Your task to perform on an android device: Open wifi settings Image 0: 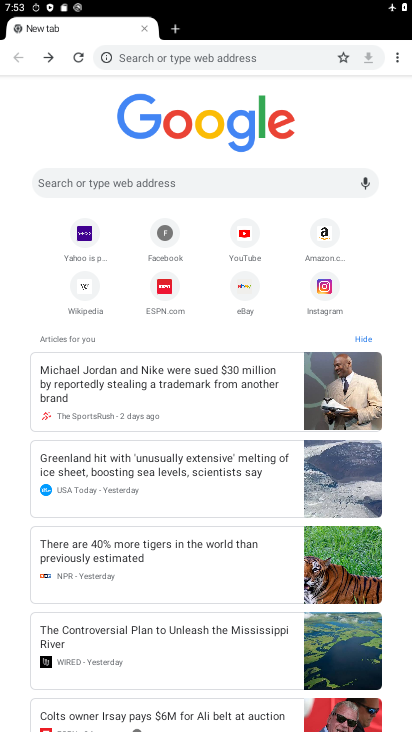
Step 0: press back button
Your task to perform on an android device: Open wifi settings Image 1: 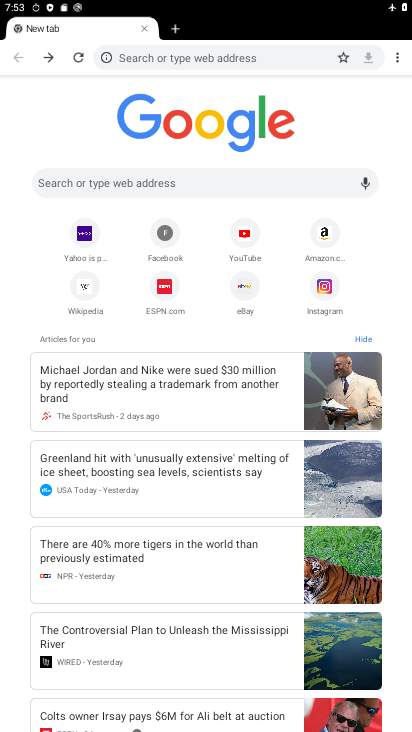
Step 1: press back button
Your task to perform on an android device: Open wifi settings Image 2: 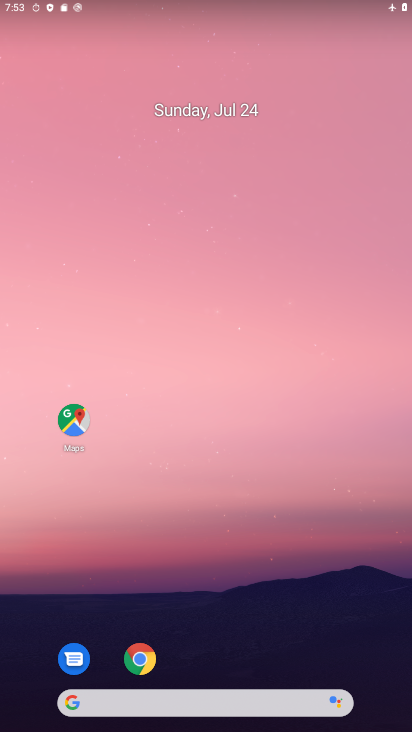
Step 2: drag from (198, 437) to (201, 167)
Your task to perform on an android device: Open wifi settings Image 3: 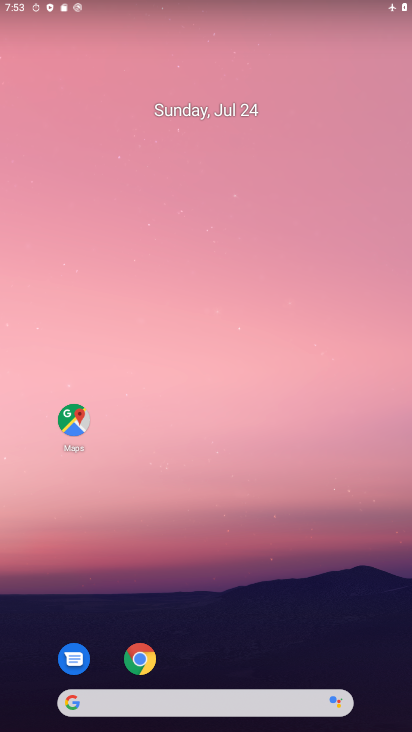
Step 3: drag from (288, 596) to (275, 24)
Your task to perform on an android device: Open wifi settings Image 4: 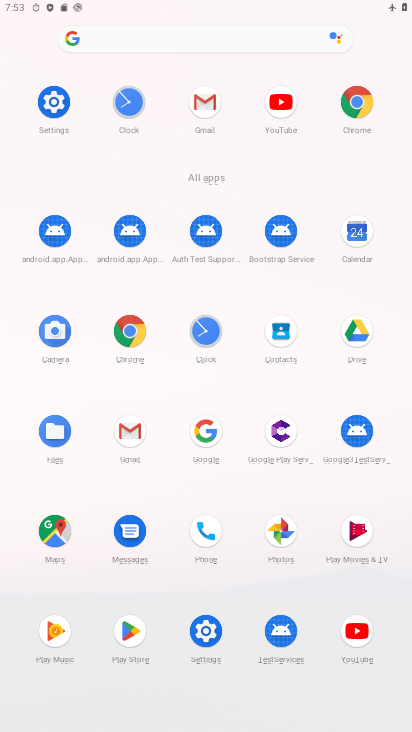
Step 4: click (43, 99)
Your task to perform on an android device: Open wifi settings Image 5: 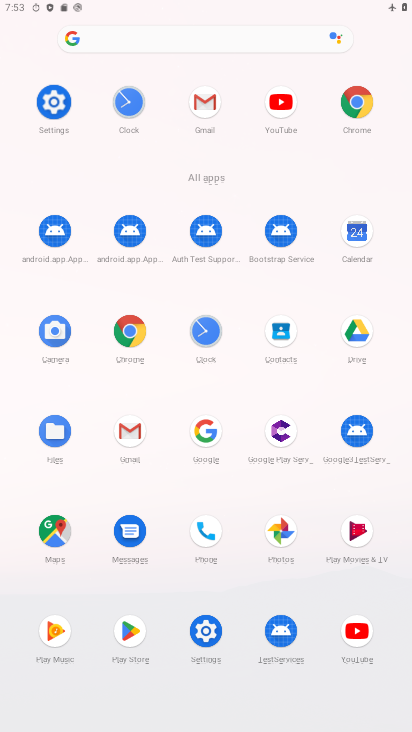
Step 5: click (40, 97)
Your task to perform on an android device: Open wifi settings Image 6: 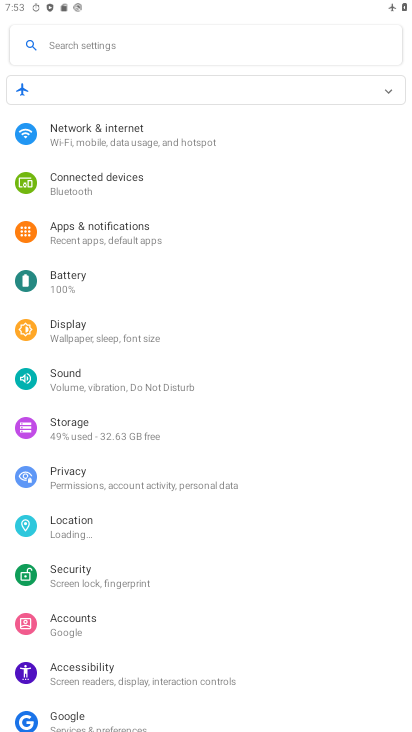
Step 6: click (115, 138)
Your task to perform on an android device: Open wifi settings Image 7: 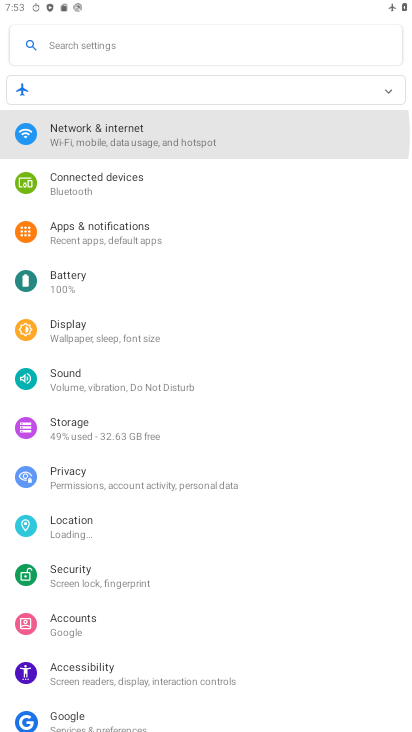
Step 7: click (115, 139)
Your task to perform on an android device: Open wifi settings Image 8: 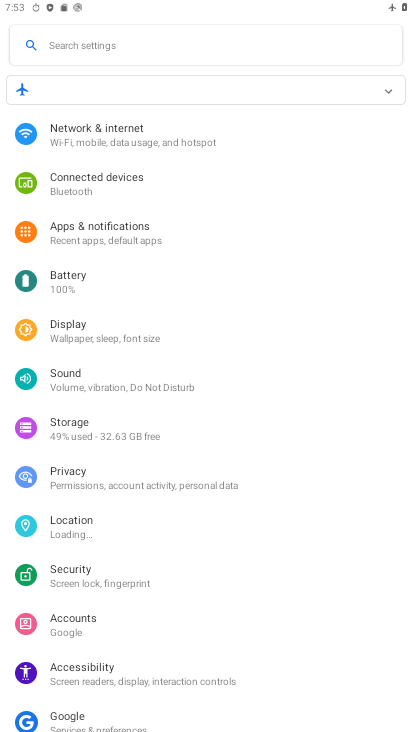
Step 8: click (116, 140)
Your task to perform on an android device: Open wifi settings Image 9: 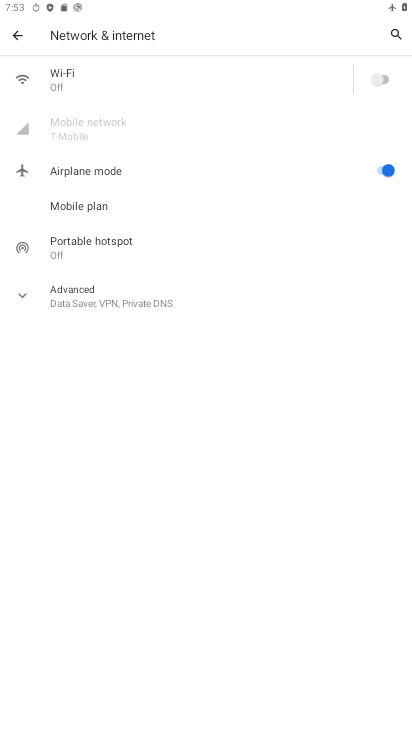
Step 9: click (384, 76)
Your task to perform on an android device: Open wifi settings Image 10: 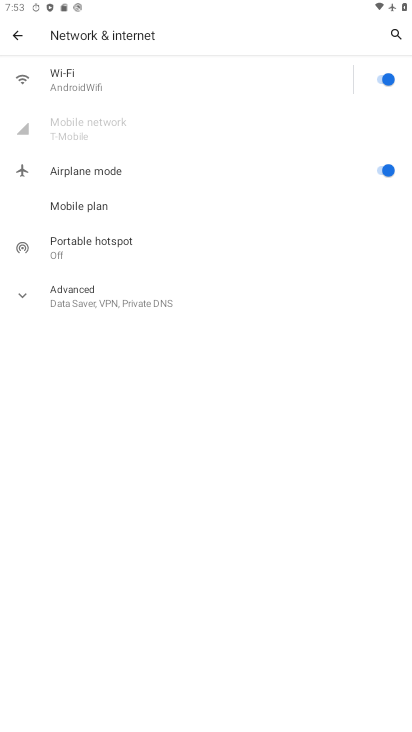
Step 10: click (395, 163)
Your task to perform on an android device: Open wifi settings Image 11: 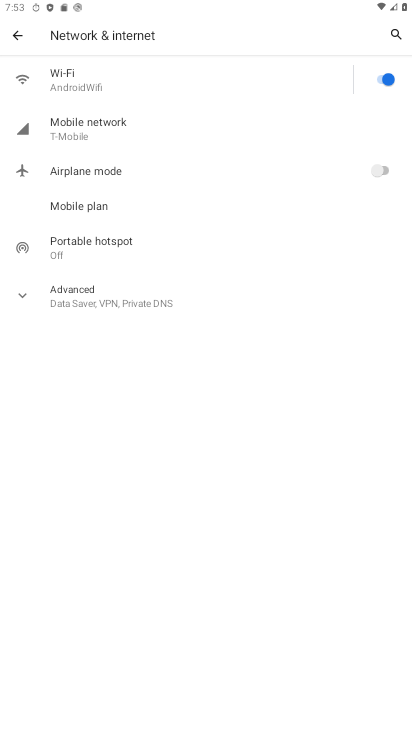
Step 11: task complete